Your task to perform on an android device: open the mobile data screen to see how much data has been used Image 0: 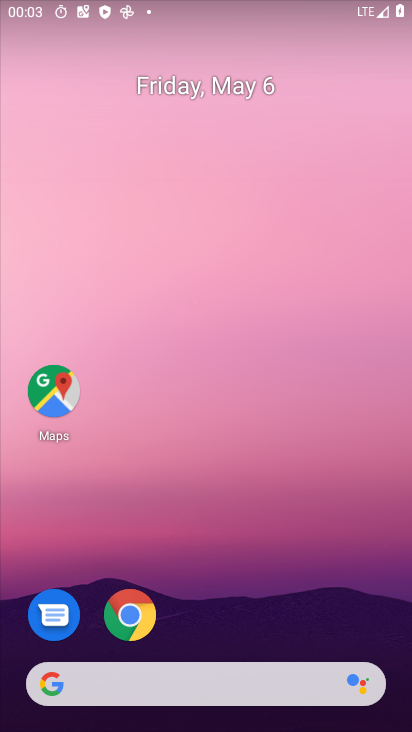
Step 0: drag from (249, 609) to (237, 107)
Your task to perform on an android device: open the mobile data screen to see how much data has been used Image 1: 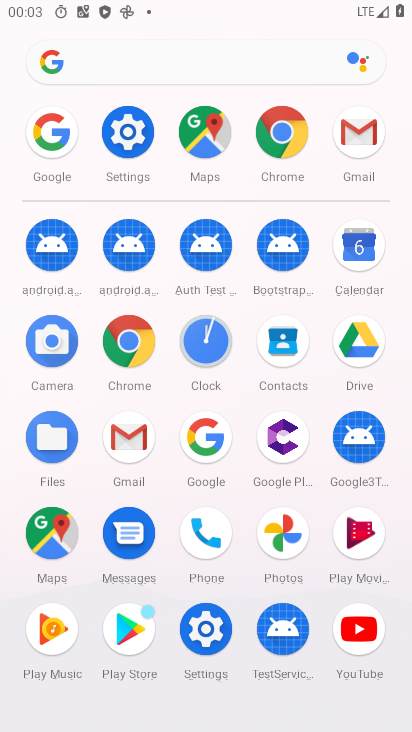
Step 1: click (127, 129)
Your task to perform on an android device: open the mobile data screen to see how much data has been used Image 2: 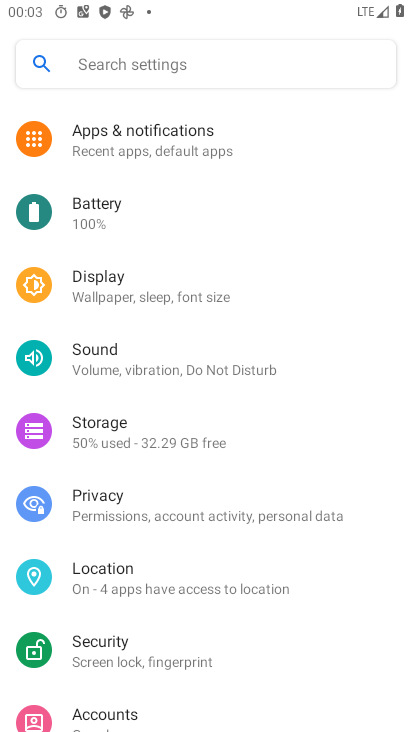
Step 2: drag from (176, 278) to (225, 619)
Your task to perform on an android device: open the mobile data screen to see how much data has been used Image 3: 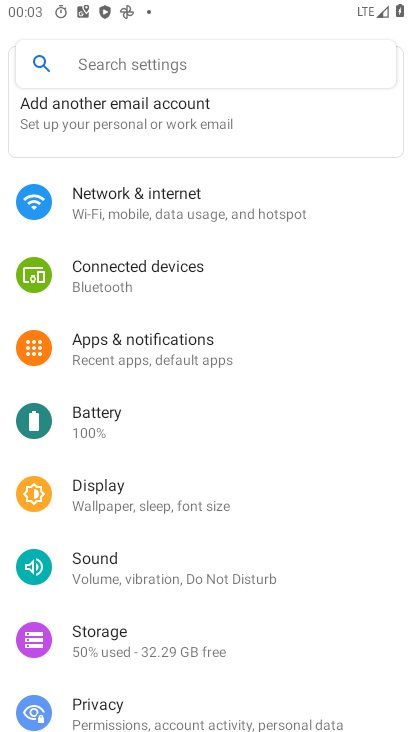
Step 3: click (119, 218)
Your task to perform on an android device: open the mobile data screen to see how much data has been used Image 4: 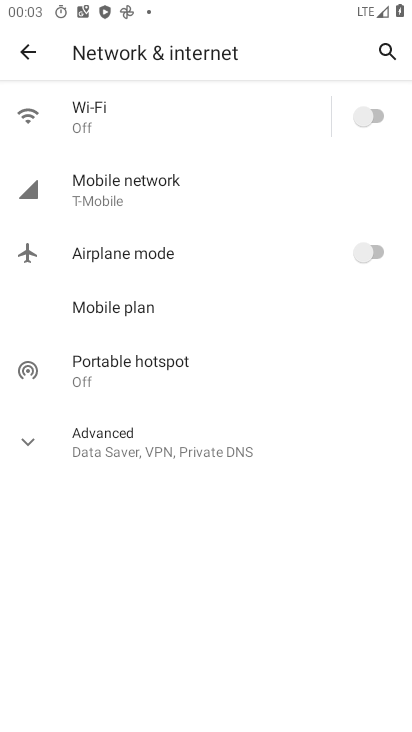
Step 4: click (105, 192)
Your task to perform on an android device: open the mobile data screen to see how much data has been used Image 5: 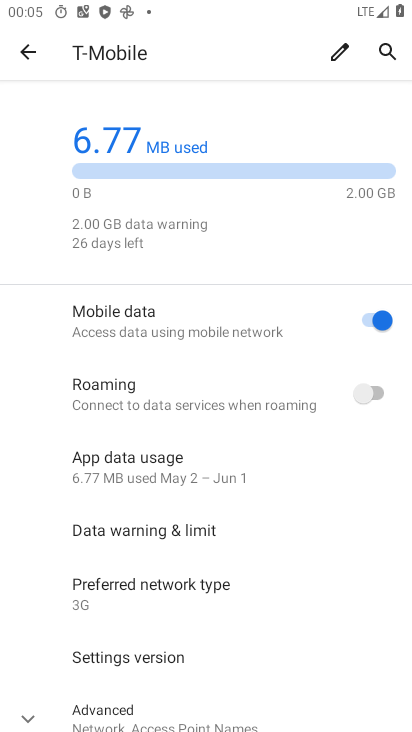
Step 5: task complete